Your task to perform on an android device: Show me the alarms in the clock app Image 0: 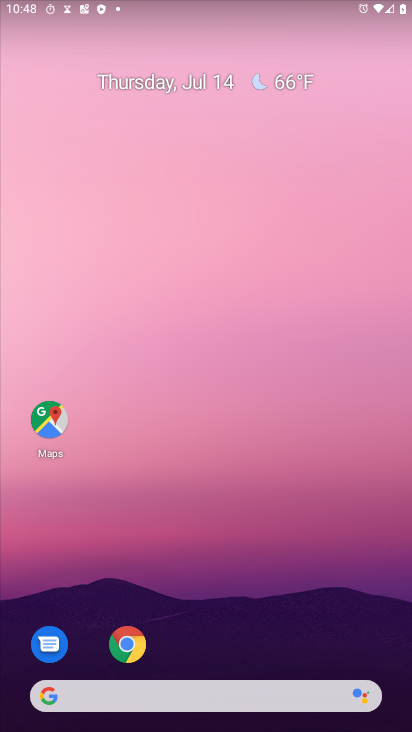
Step 0: drag from (305, 622) to (140, 165)
Your task to perform on an android device: Show me the alarms in the clock app Image 1: 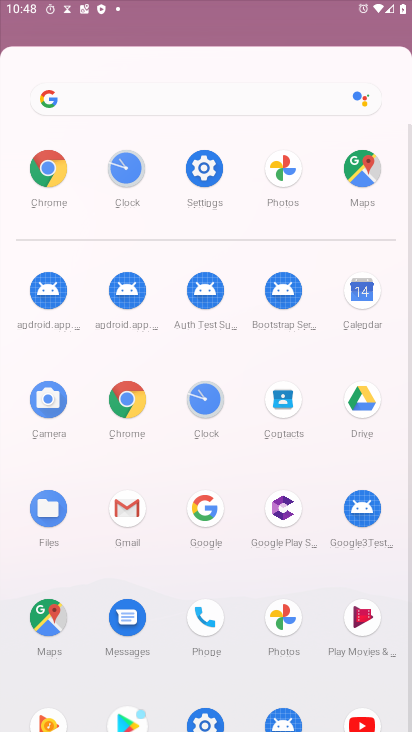
Step 1: drag from (179, 515) to (152, 39)
Your task to perform on an android device: Show me the alarms in the clock app Image 2: 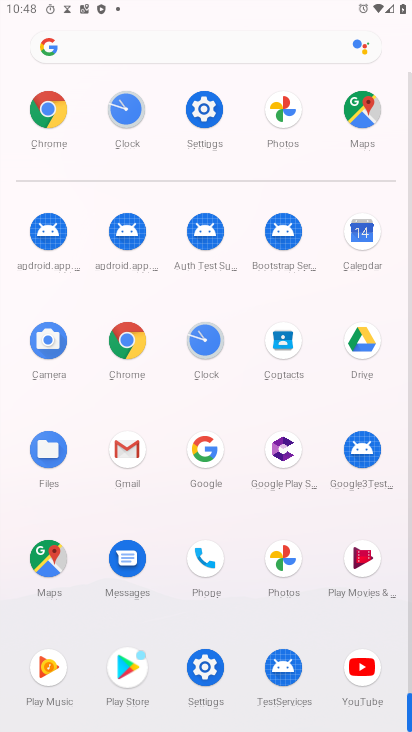
Step 2: click (198, 339)
Your task to perform on an android device: Show me the alarms in the clock app Image 3: 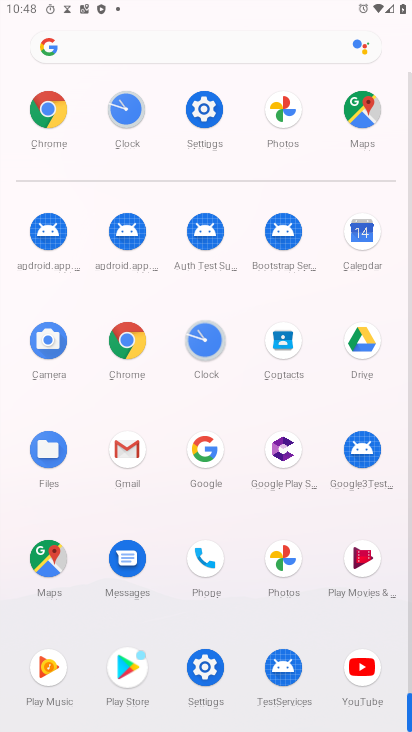
Step 3: click (202, 340)
Your task to perform on an android device: Show me the alarms in the clock app Image 4: 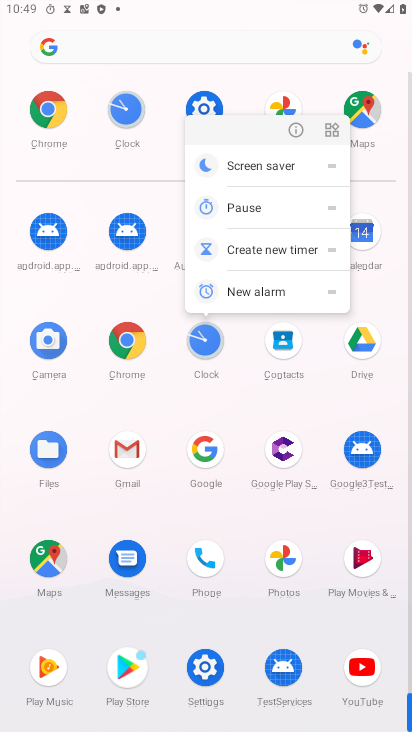
Step 4: click (206, 337)
Your task to perform on an android device: Show me the alarms in the clock app Image 5: 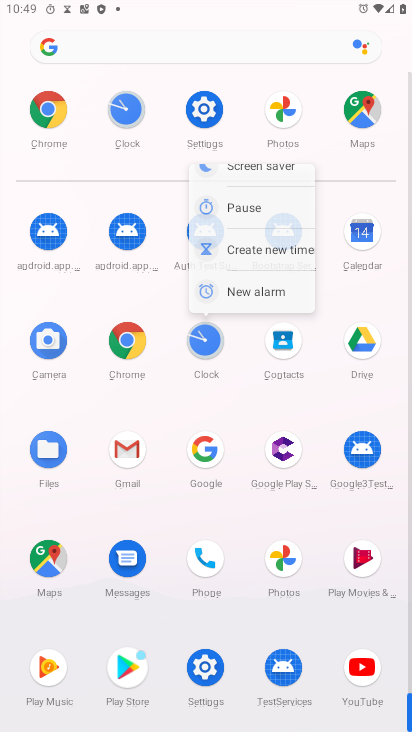
Step 5: click (208, 339)
Your task to perform on an android device: Show me the alarms in the clock app Image 6: 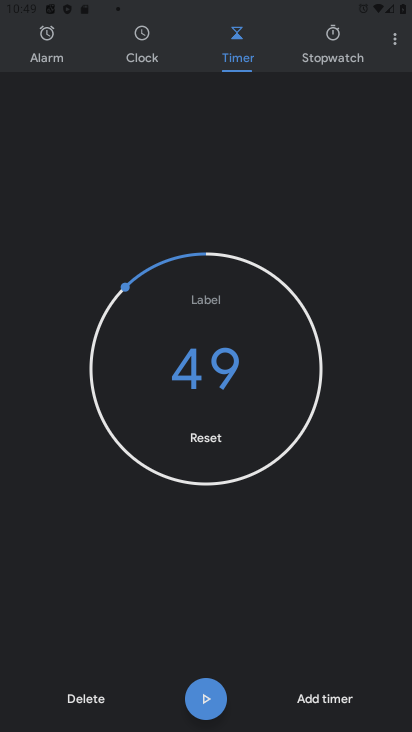
Step 6: click (208, 339)
Your task to perform on an android device: Show me the alarms in the clock app Image 7: 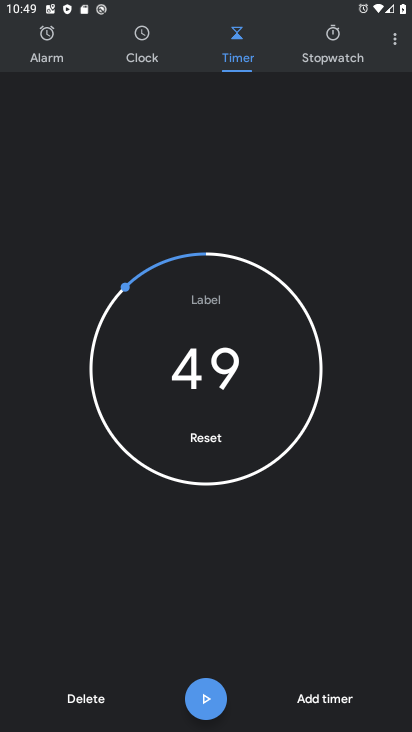
Step 7: click (208, 339)
Your task to perform on an android device: Show me the alarms in the clock app Image 8: 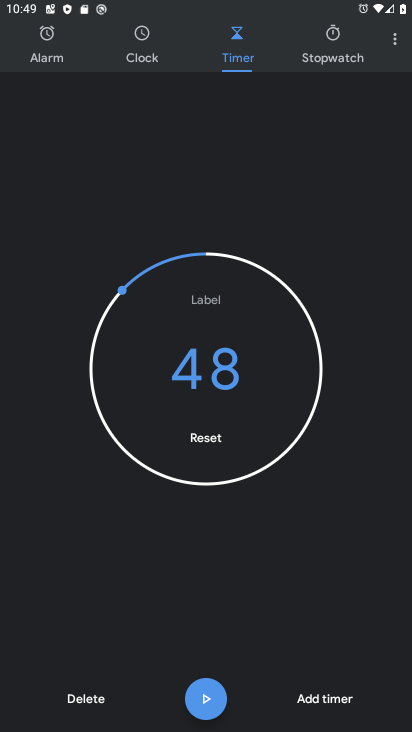
Step 8: click (146, 43)
Your task to perform on an android device: Show me the alarms in the clock app Image 9: 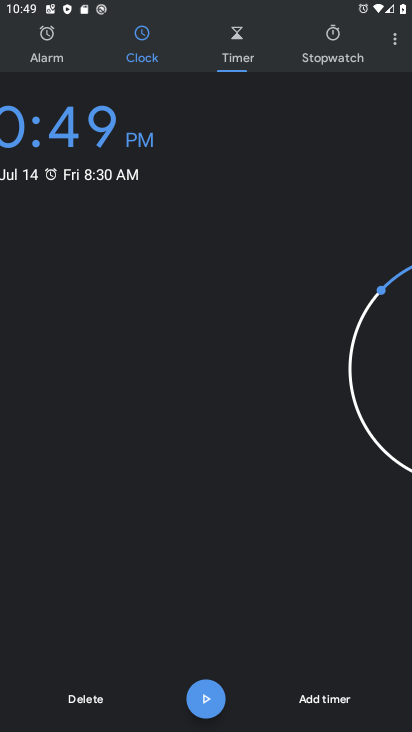
Step 9: click (146, 43)
Your task to perform on an android device: Show me the alarms in the clock app Image 10: 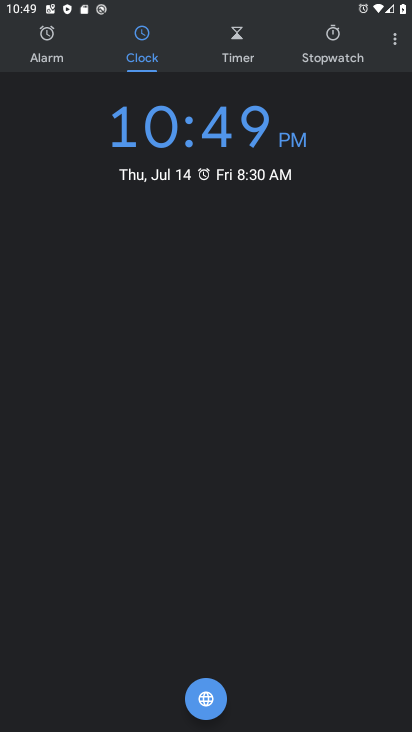
Step 10: click (29, 49)
Your task to perform on an android device: Show me the alarms in the clock app Image 11: 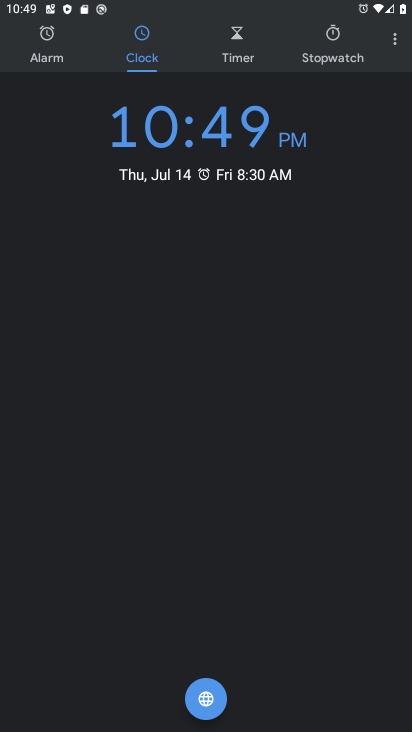
Step 11: click (38, 53)
Your task to perform on an android device: Show me the alarms in the clock app Image 12: 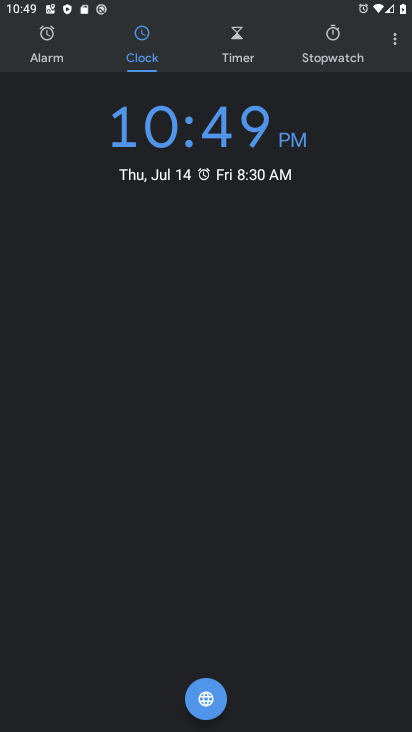
Step 12: click (38, 54)
Your task to perform on an android device: Show me the alarms in the clock app Image 13: 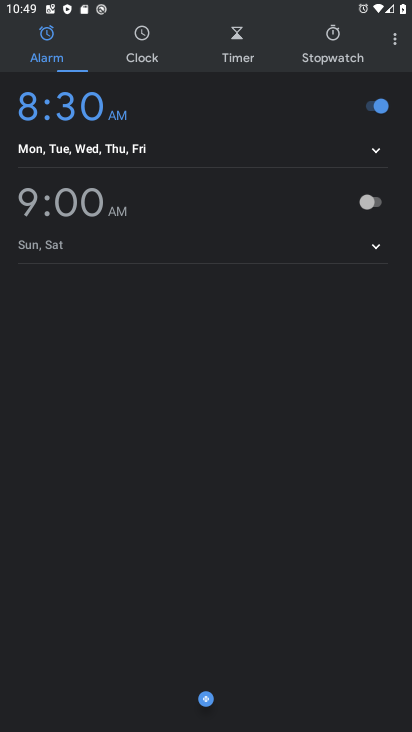
Step 13: click (38, 54)
Your task to perform on an android device: Show me the alarms in the clock app Image 14: 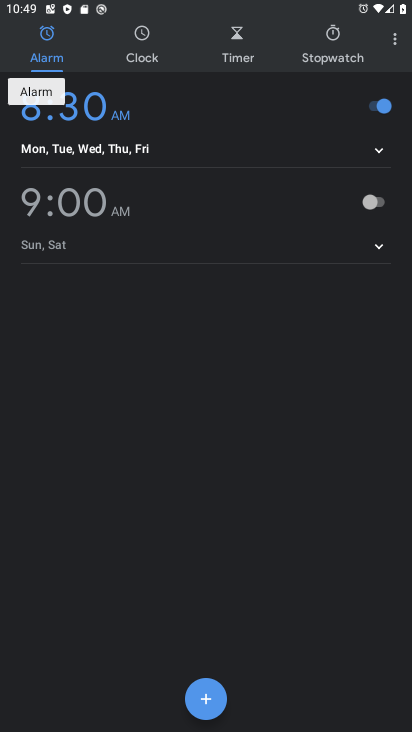
Step 14: click (371, 195)
Your task to perform on an android device: Show me the alarms in the clock app Image 15: 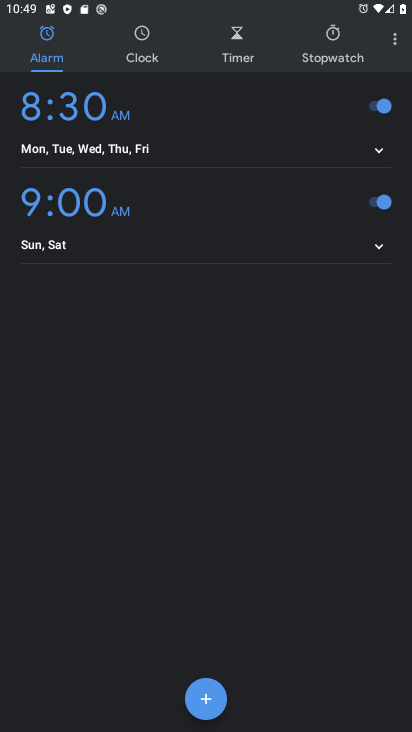
Step 15: task complete